Your task to perform on an android device: Go to calendar. Show me events next week Image 0: 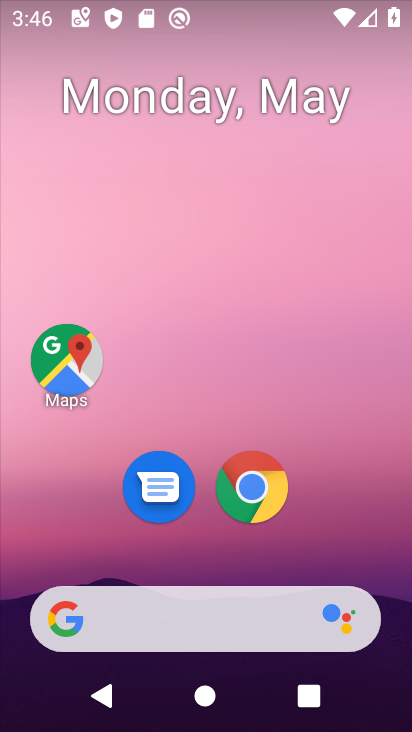
Step 0: drag from (204, 574) to (206, 190)
Your task to perform on an android device: Go to calendar. Show me events next week Image 1: 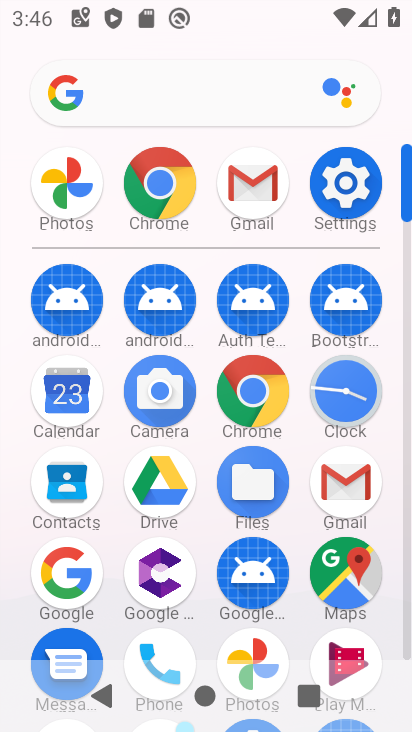
Step 1: click (68, 411)
Your task to perform on an android device: Go to calendar. Show me events next week Image 2: 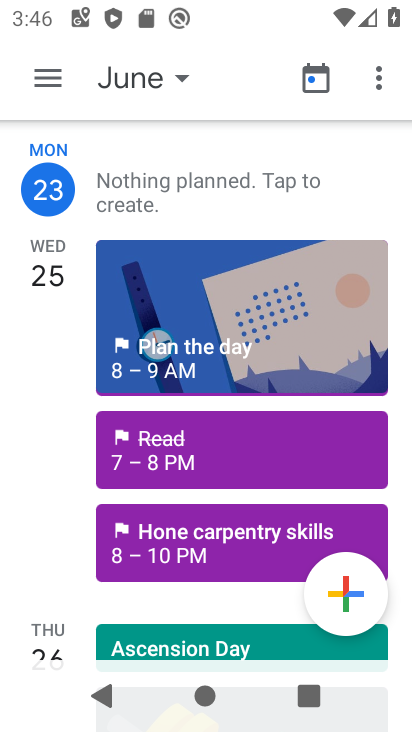
Step 2: click (161, 84)
Your task to perform on an android device: Go to calendar. Show me events next week Image 3: 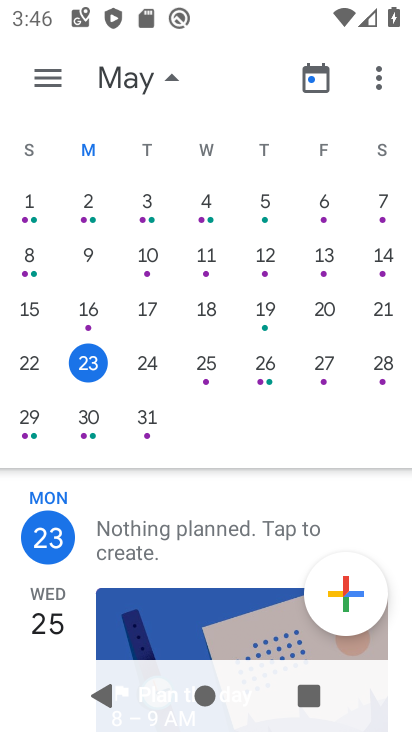
Step 3: drag from (116, 224) to (411, 314)
Your task to perform on an android device: Go to calendar. Show me events next week Image 4: 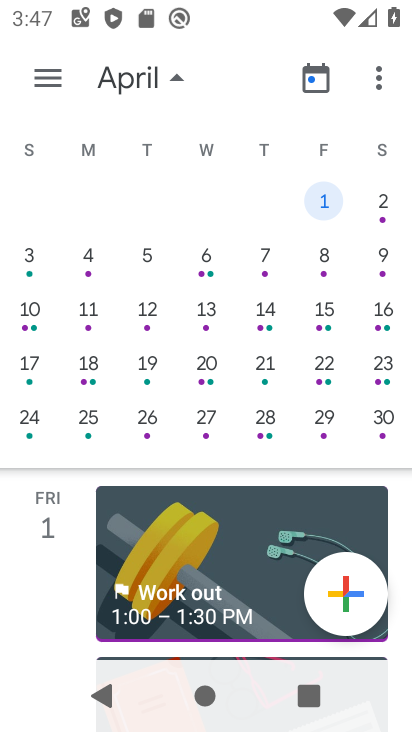
Step 4: drag from (353, 304) to (22, 410)
Your task to perform on an android device: Go to calendar. Show me events next week Image 5: 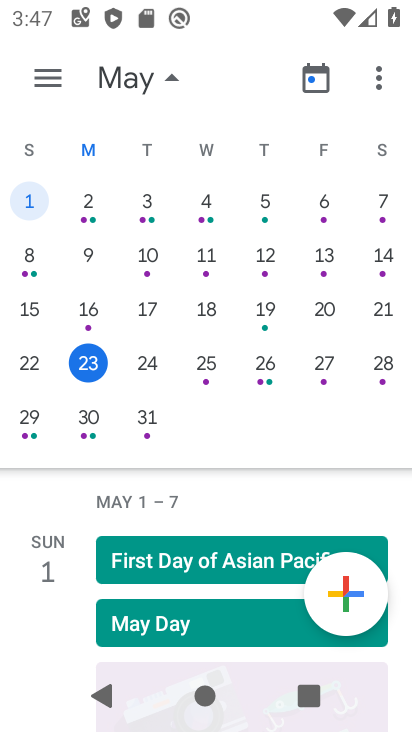
Step 5: drag from (362, 386) to (0, 423)
Your task to perform on an android device: Go to calendar. Show me events next week Image 6: 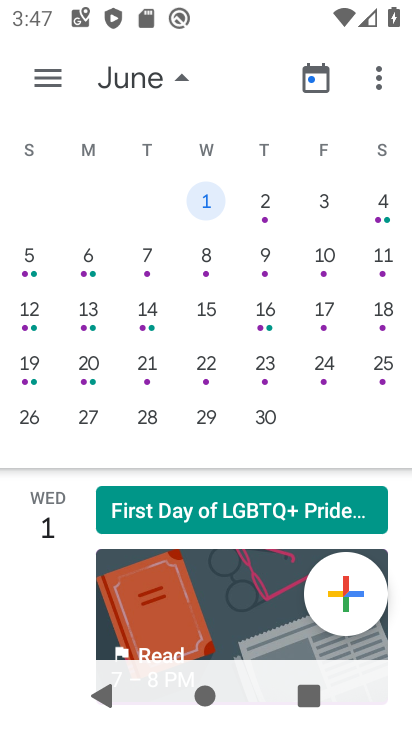
Step 6: click (187, 516)
Your task to perform on an android device: Go to calendar. Show me events next week Image 7: 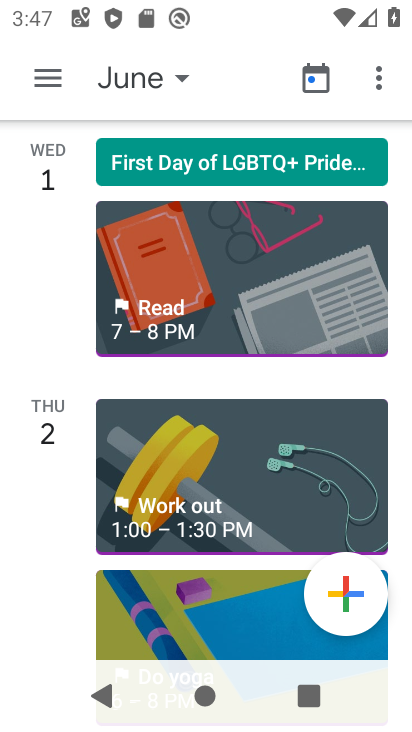
Step 7: task complete